Your task to perform on an android device: Do I have any events today? Image 0: 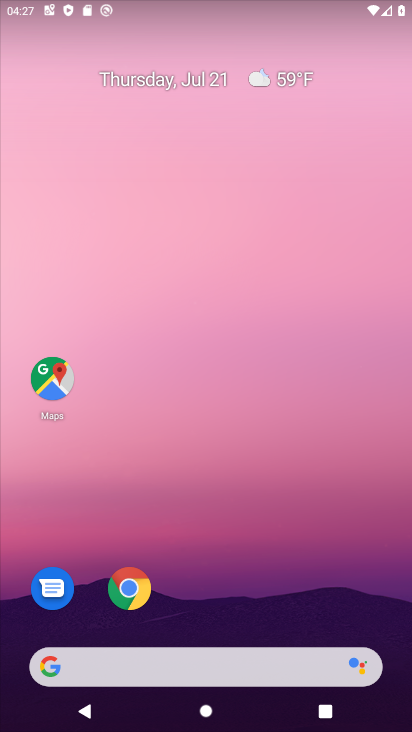
Step 0: drag from (207, 611) to (217, 308)
Your task to perform on an android device: Do I have any events today? Image 1: 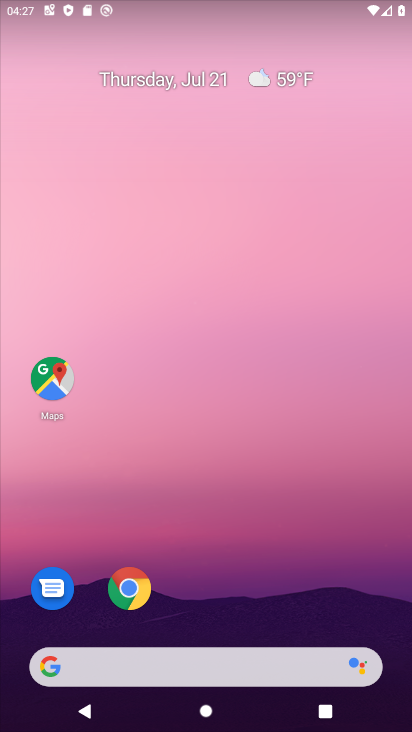
Step 1: drag from (182, 502) to (169, 241)
Your task to perform on an android device: Do I have any events today? Image 2: 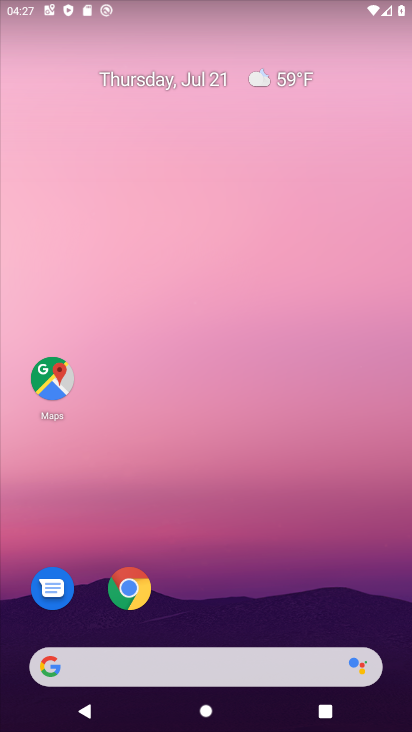
Step 2: drag from (204, 606) to (224, 6)
Your task to perform on an android device: Do I have any events today? Image 3: 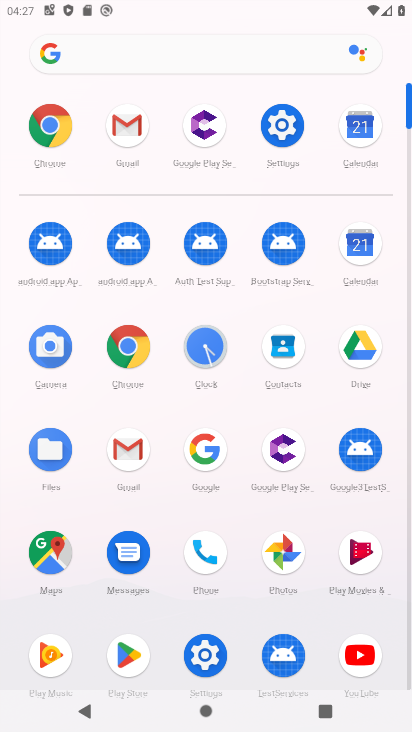
Step 3: click (375, 245)
Your task to perform on an android device: Do I have any events today? Image 4: 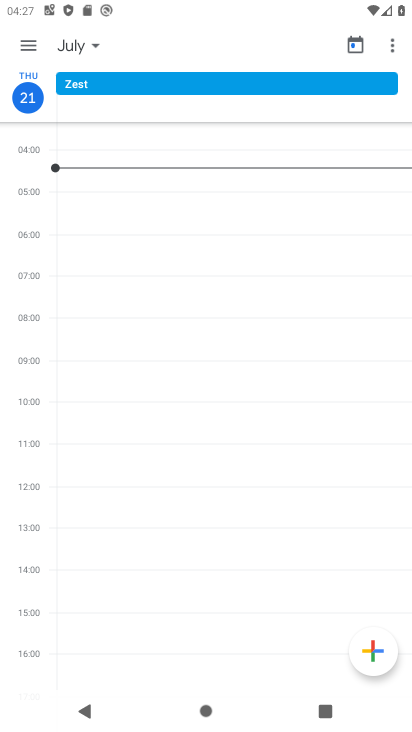
Step 4: click (26, 46)
Your task to perform on an android device: Do I have any events today? Image 5: 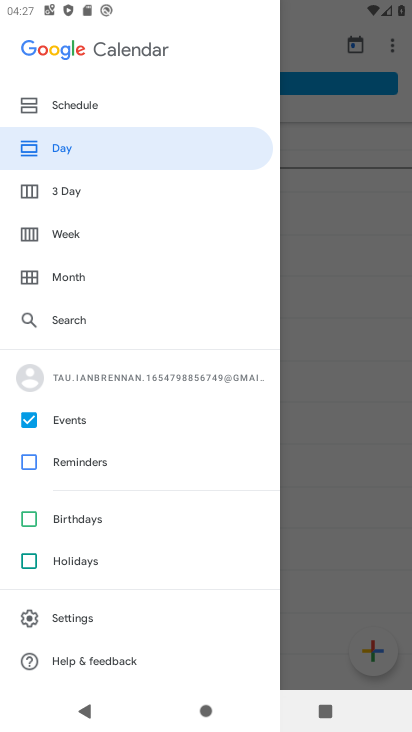
Step 5: click (74, 149)
Your task to perform on an android device: Do I have any events today? Image 6: 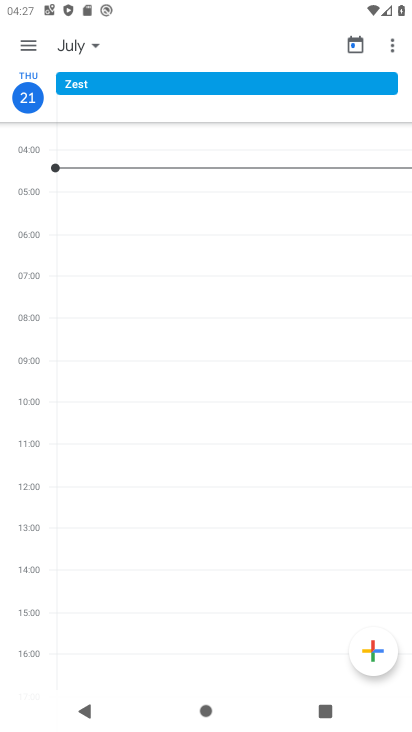
Step 6: task complete